Your task to perform on an android device: What's the news in Malaysia? Image 0: 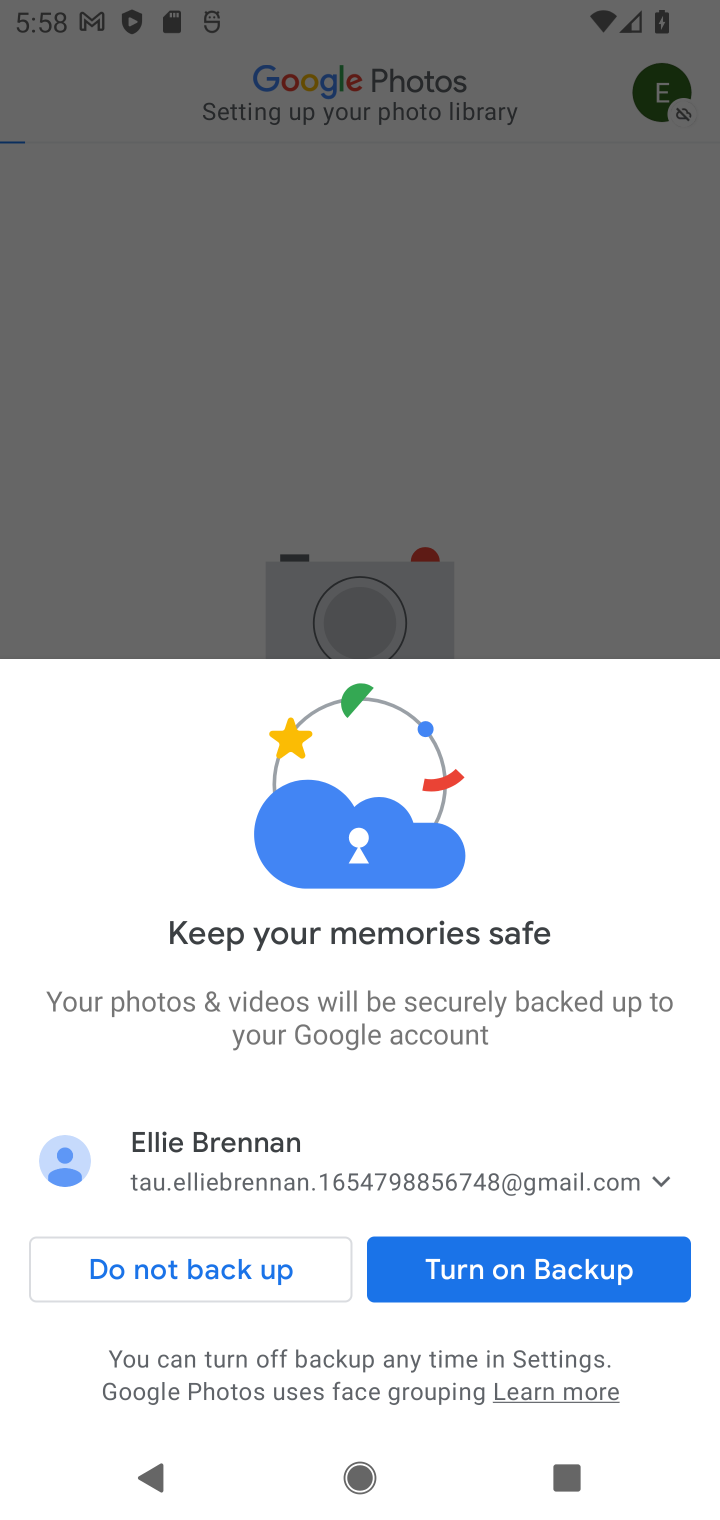
Step 0: press home button
Your task to perform on an android device: What's the news in Malaysia? Image 1: 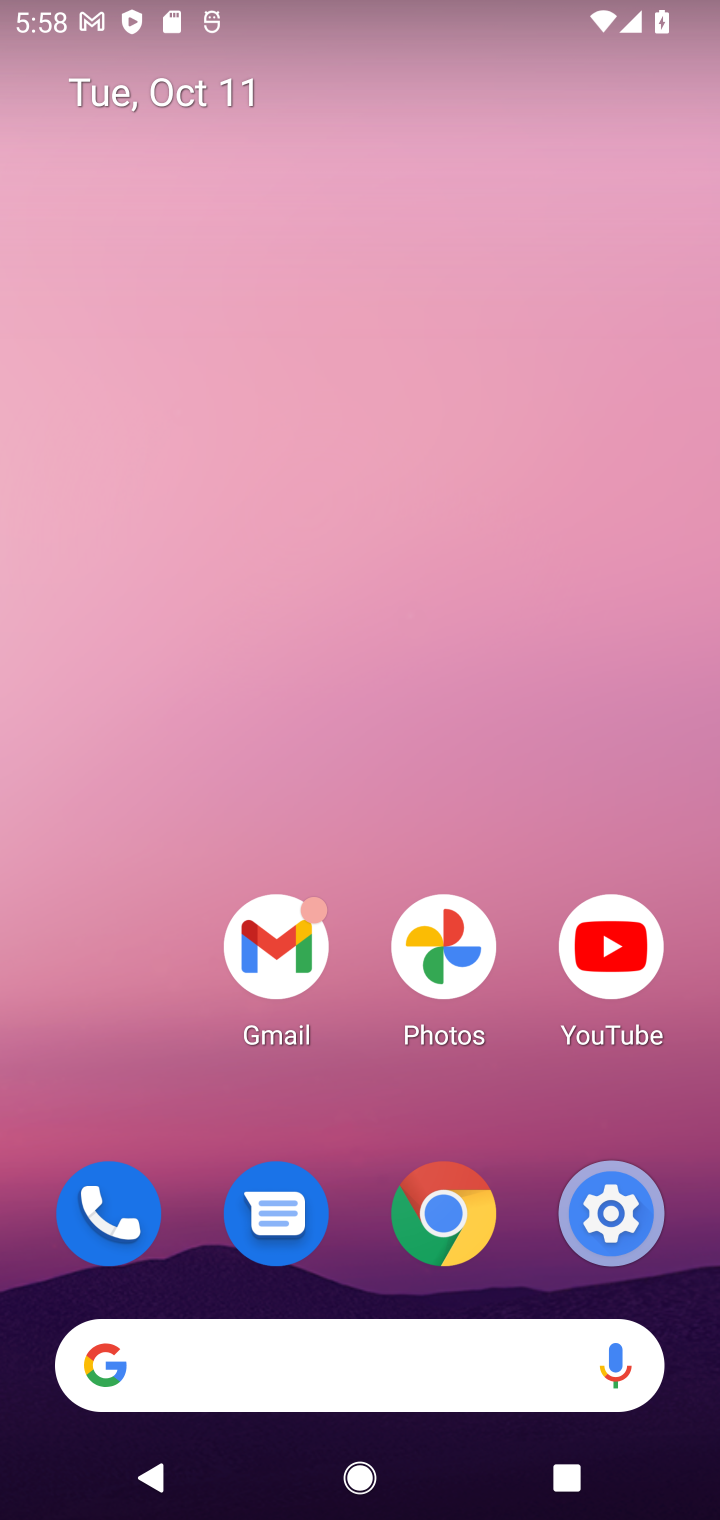
Step 1: drag from (375, 1297) to (375, 15)
Your task to perform on an android device: What's the news in Malaysia? Image 2: 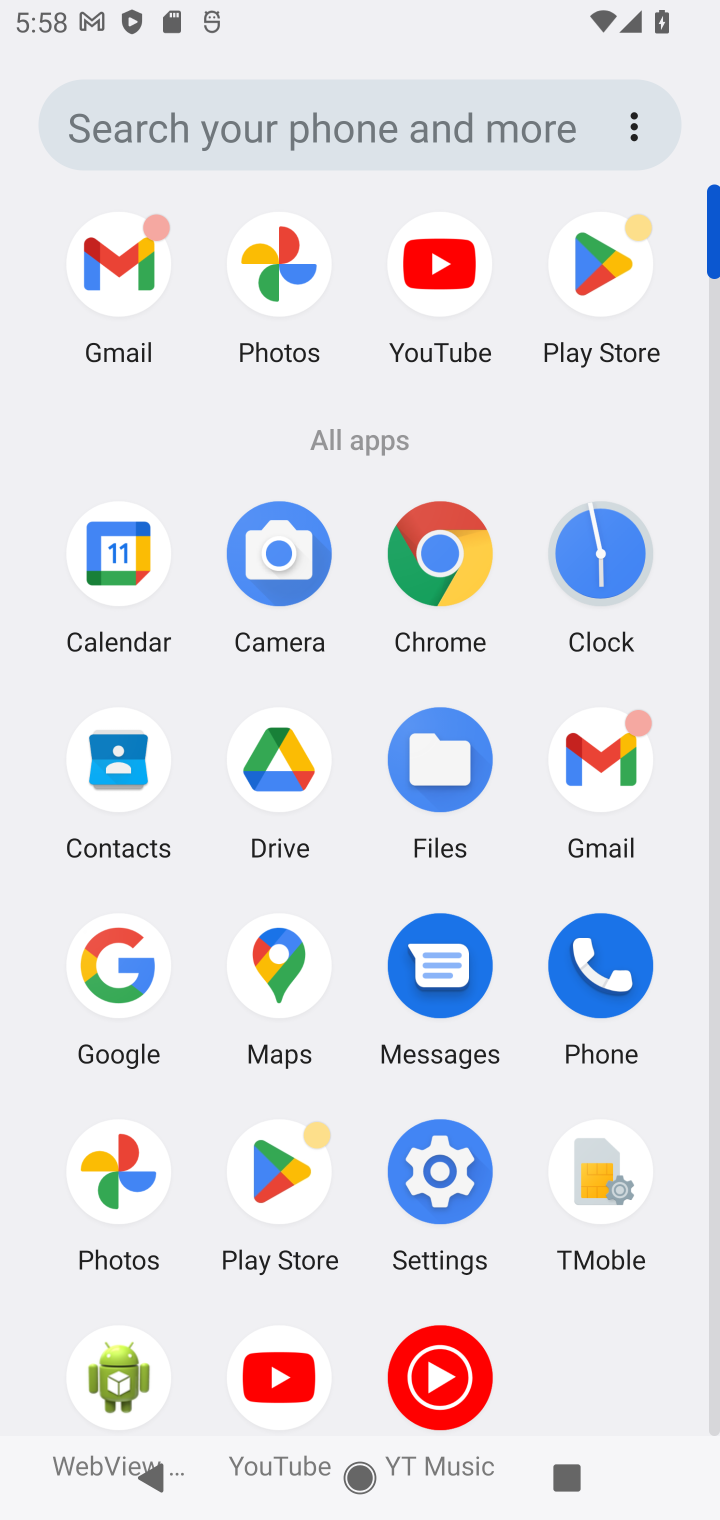
Step 2: click (447, 575)
Your task to perform on an android device: What's the news in Malaysia? Image 3: 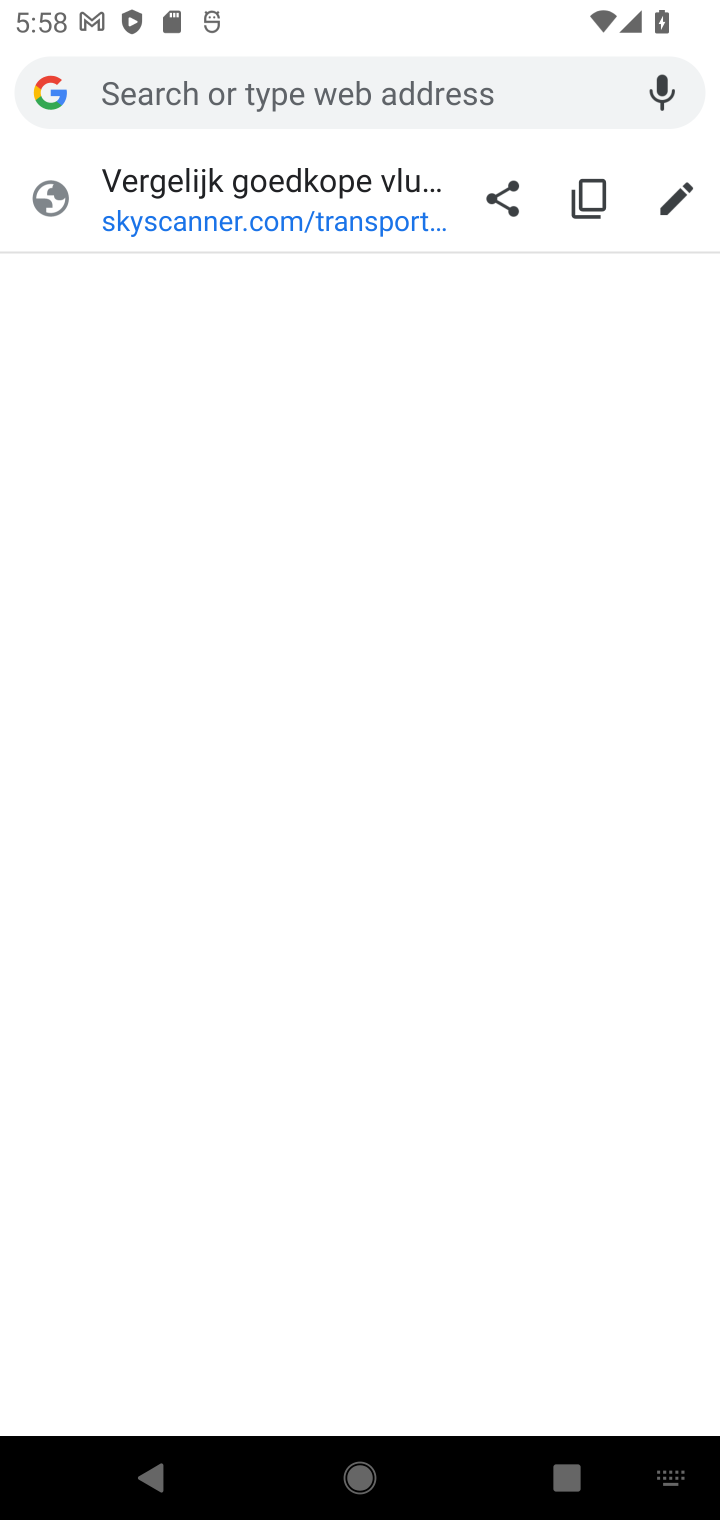
Step 3: click (388, 101)
Your task to perform on an android device: What's the news in Malaysia? Image 4: 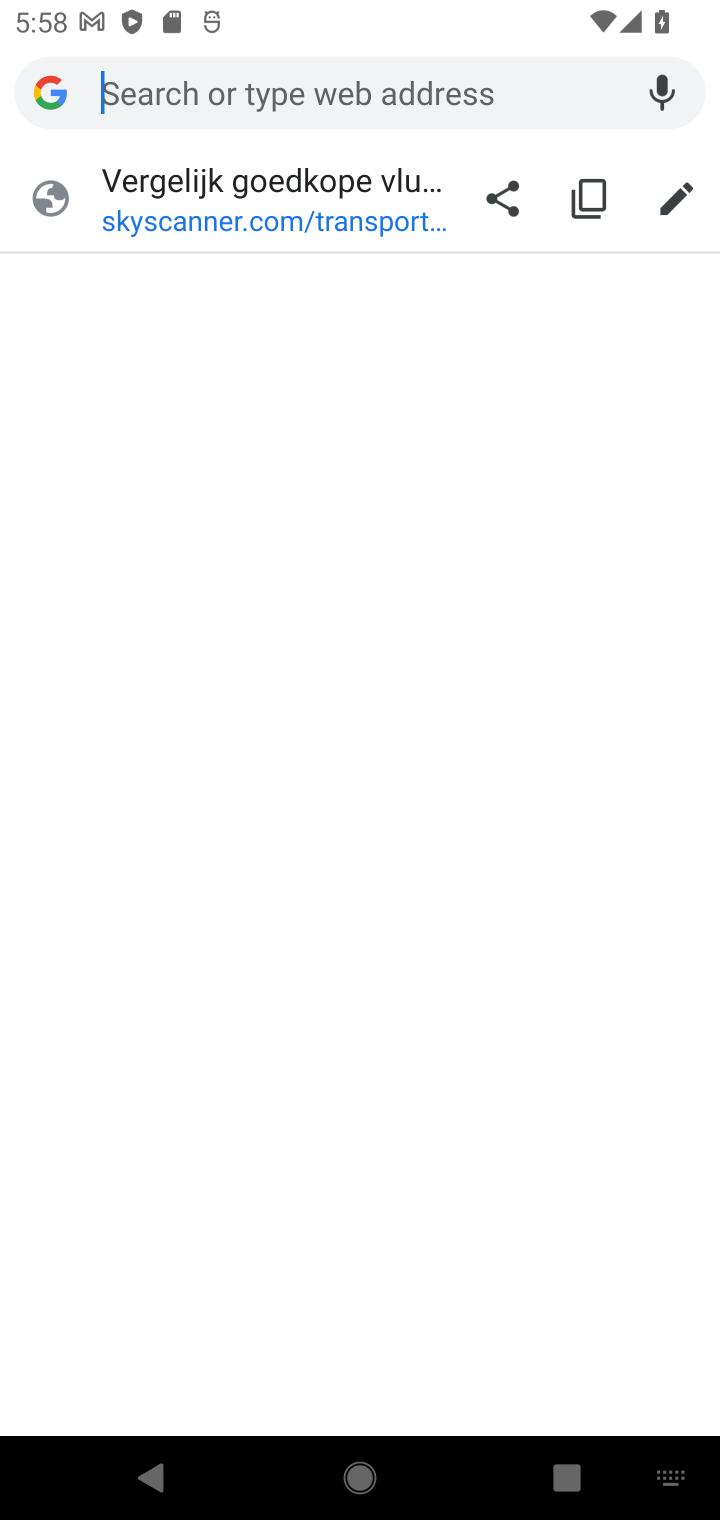
Step 4: type "What's the news in Malaysia?"
Your task to perform on an android device: What's the news in Malaysia? Image 5: 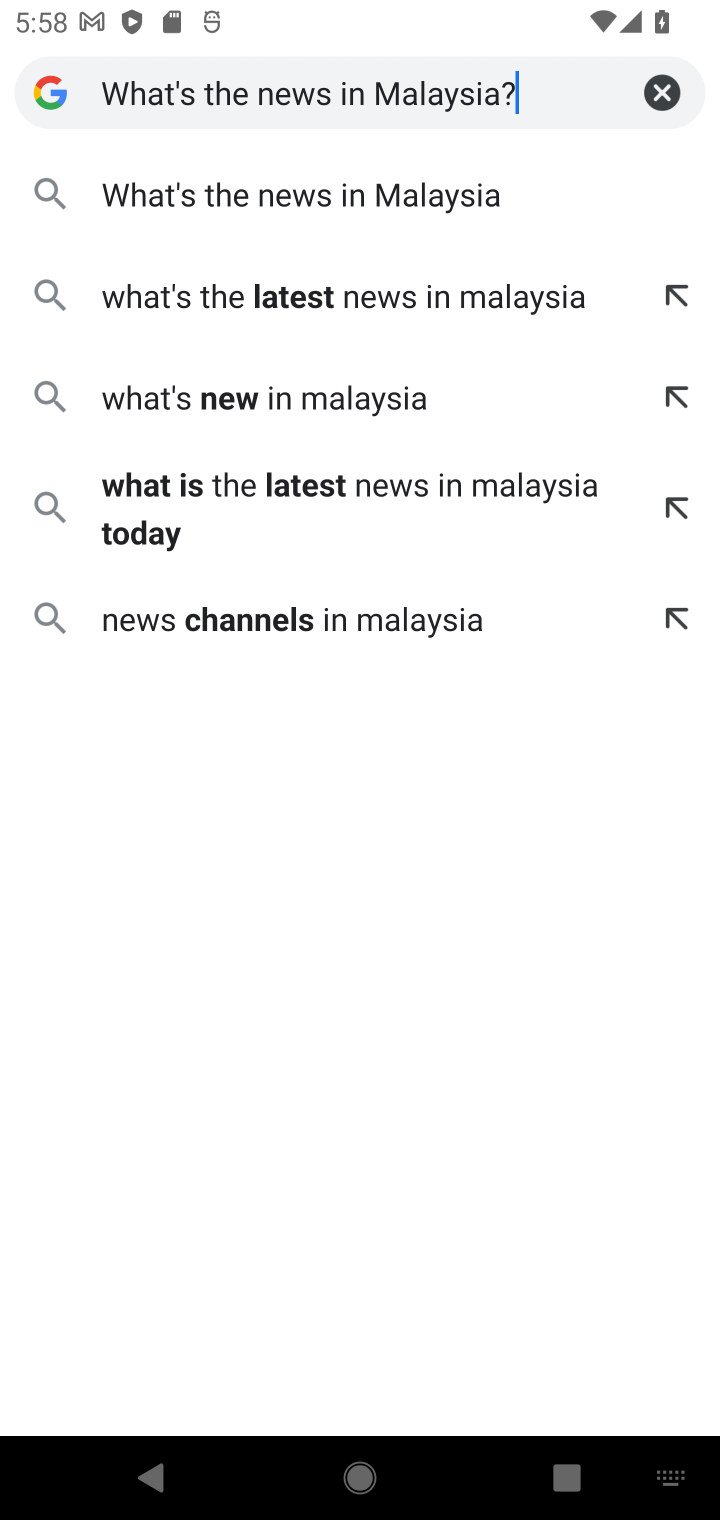
Step 5: type ""
Your task to perform on an android device: What's the news in Malaysia? Image 6: 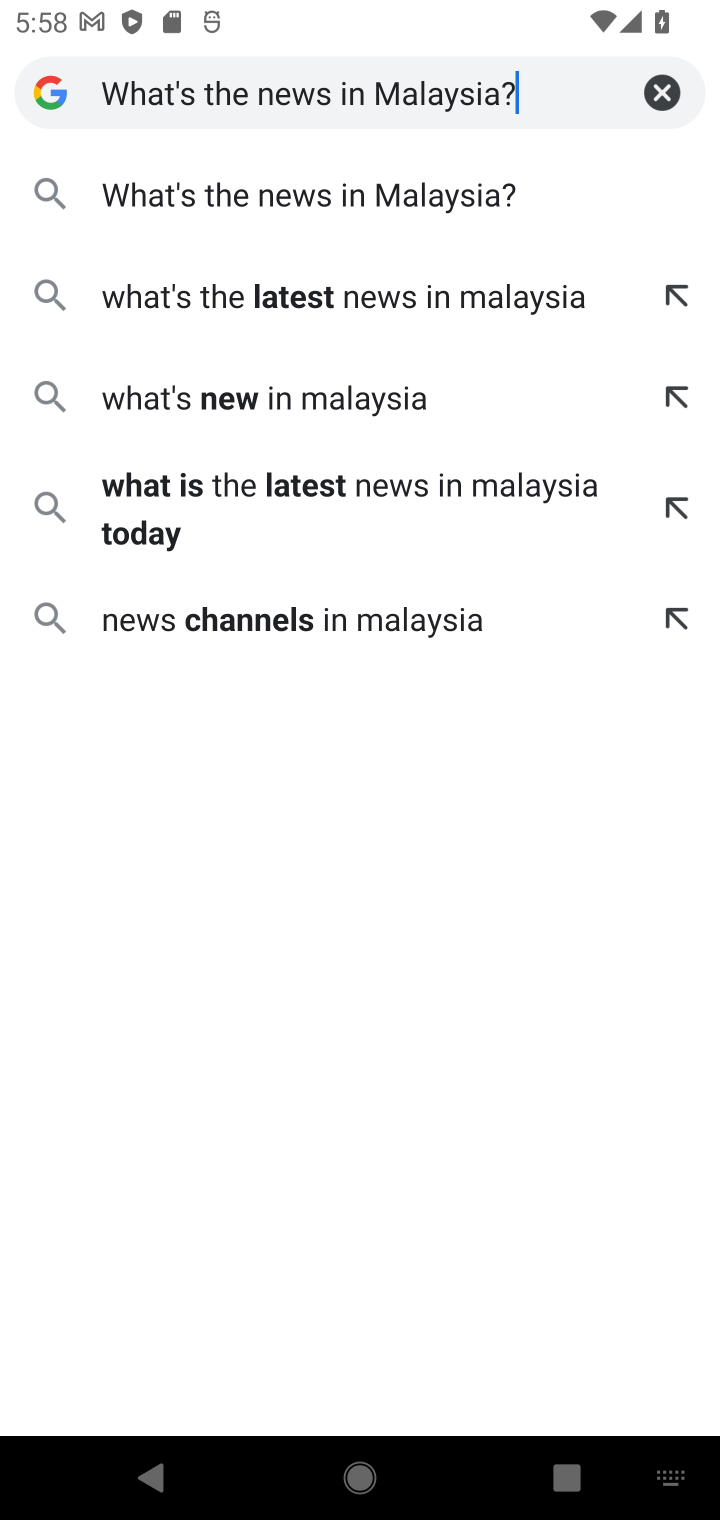
Step 6: press enter
Your task to perform on an android device: What's the news in Malaysia? Image 7: 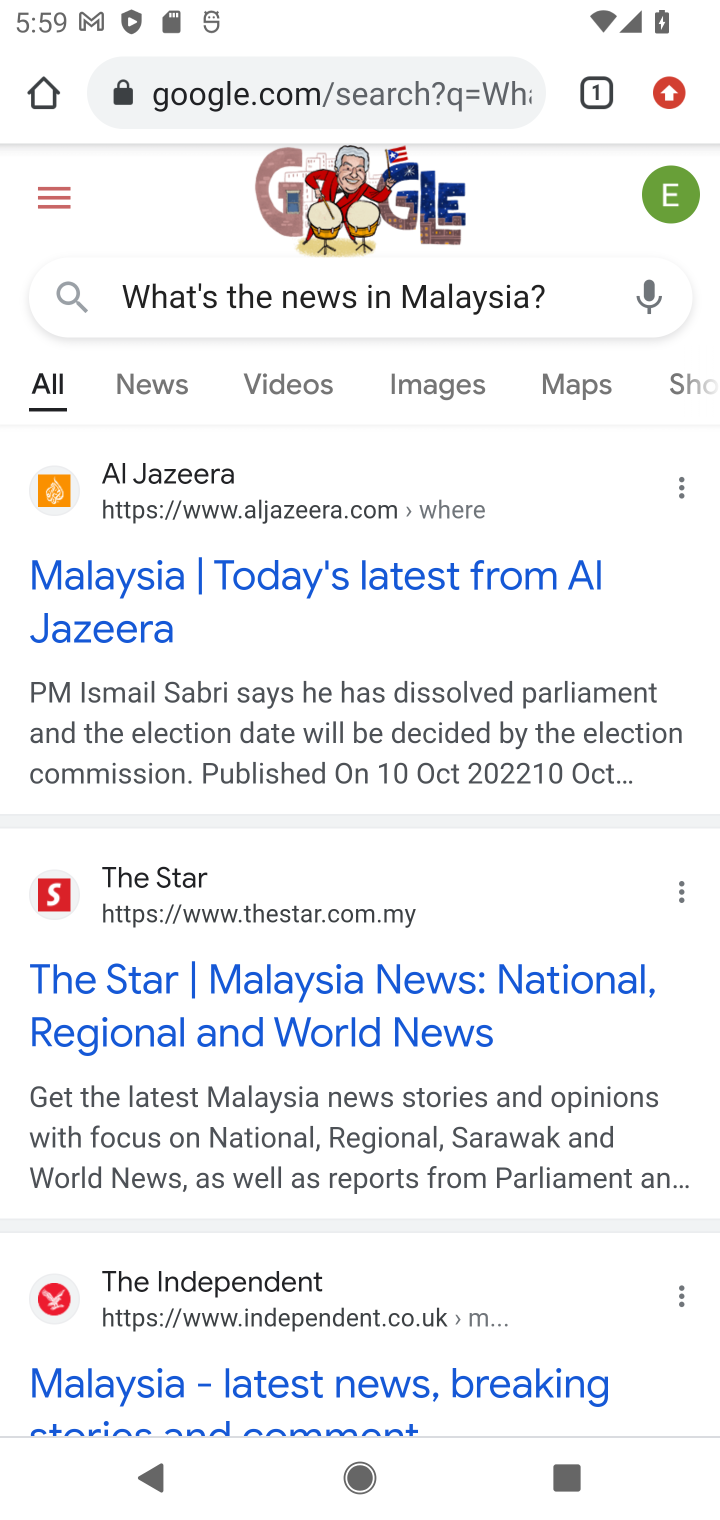
Step 7: click (271, 966)
Your task to perform on an android device: What's the news in Malaysia? Image 8: 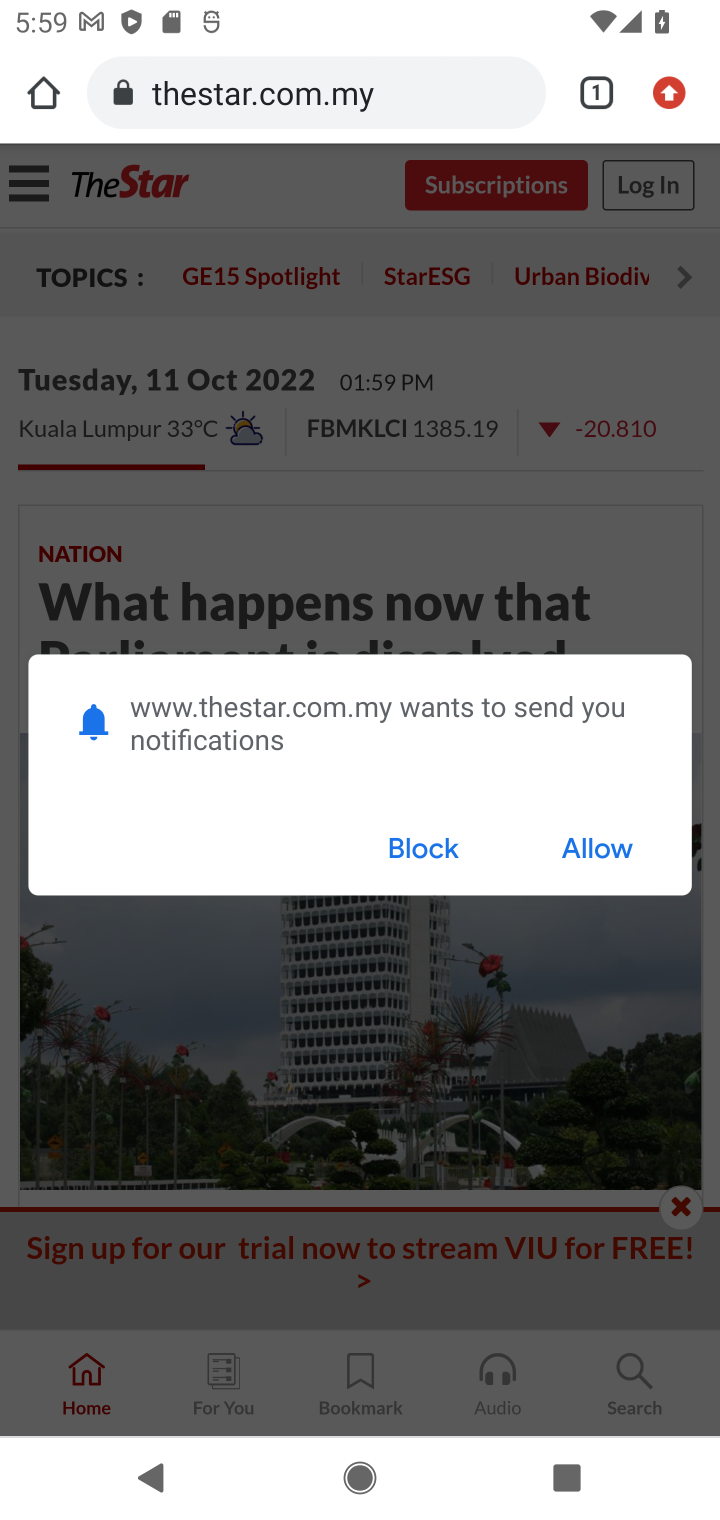
Step 8: click (404, 857)
Your task to perform on an android device: What's the news in Malaysia? Image 9: 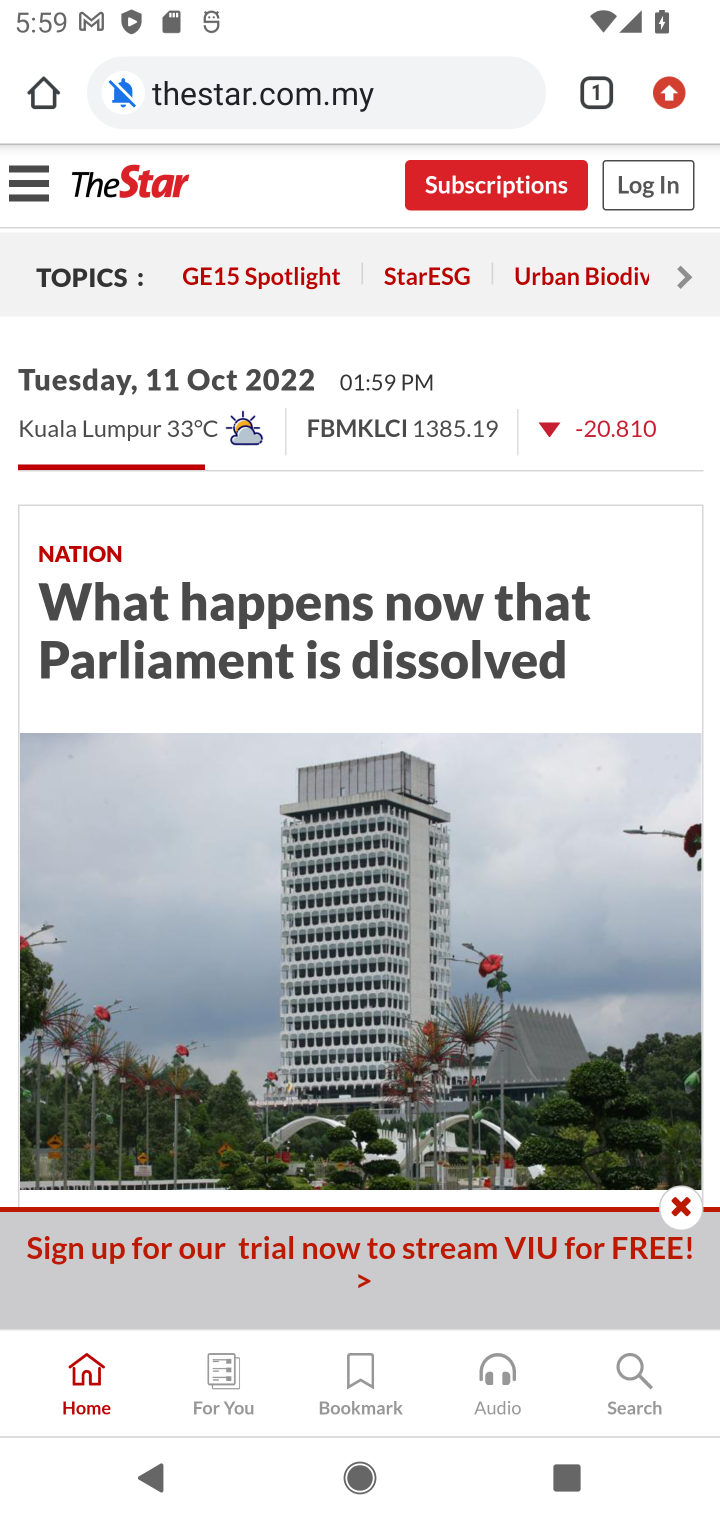
Step 9: drag from (404, 1086) to (340, 415)
Your task to perform on an android device: What's the news in Malaysia? Image 10: 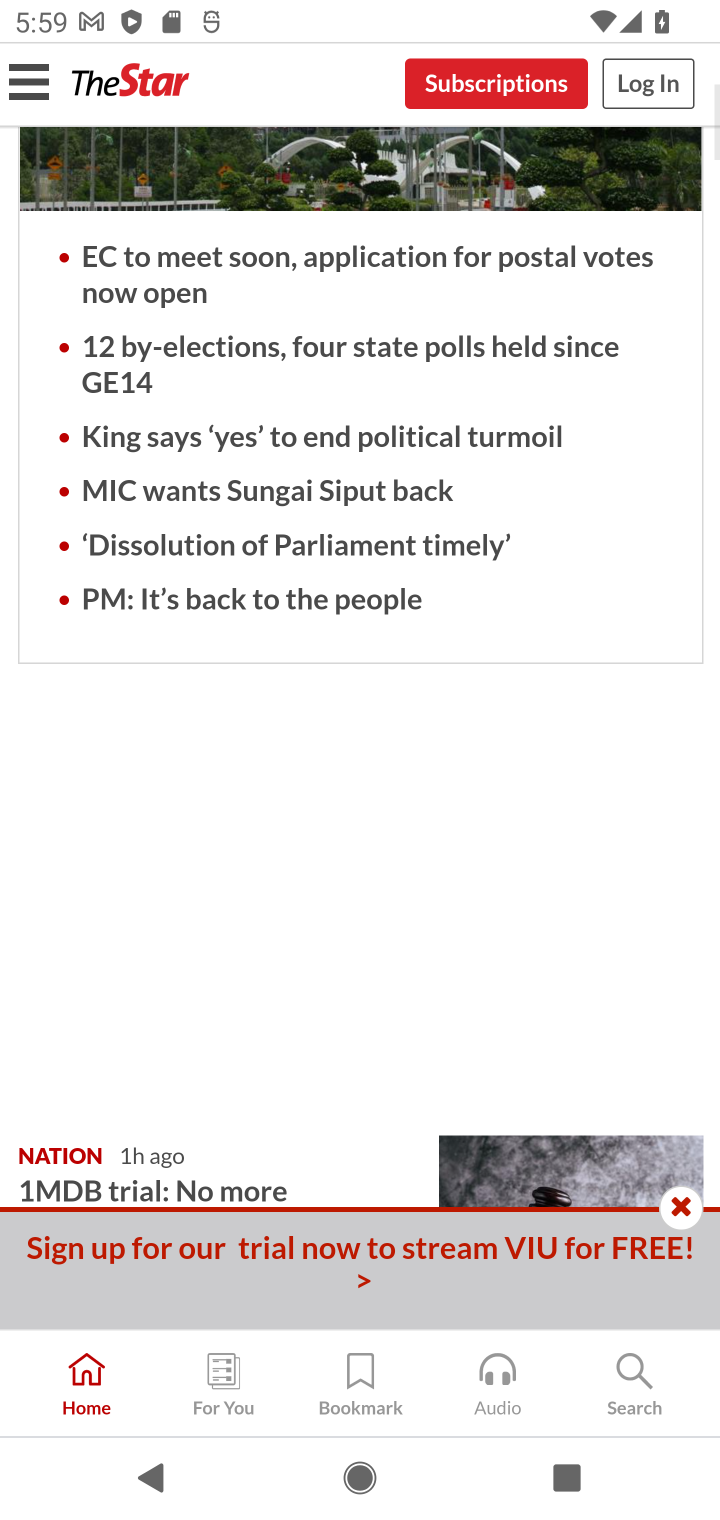
Step 10: drag from (242, 840) to (368, 458)
Your task to perform on an android device: What's the news in Malaysia? Image 11: 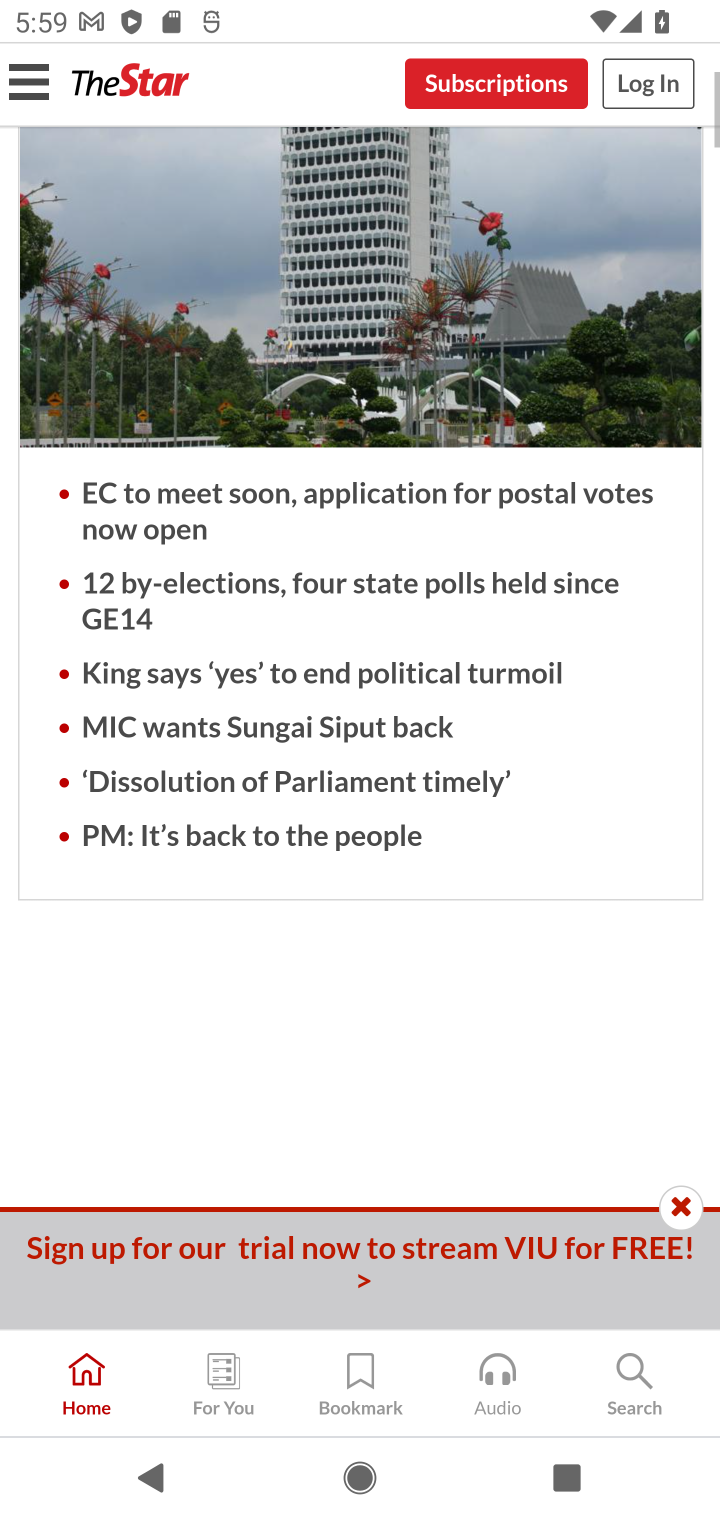
Step 11: drag from (326, 912) to (323, 494)
Your task to perform on an android device: What's the news in Malaysia? Image 12: 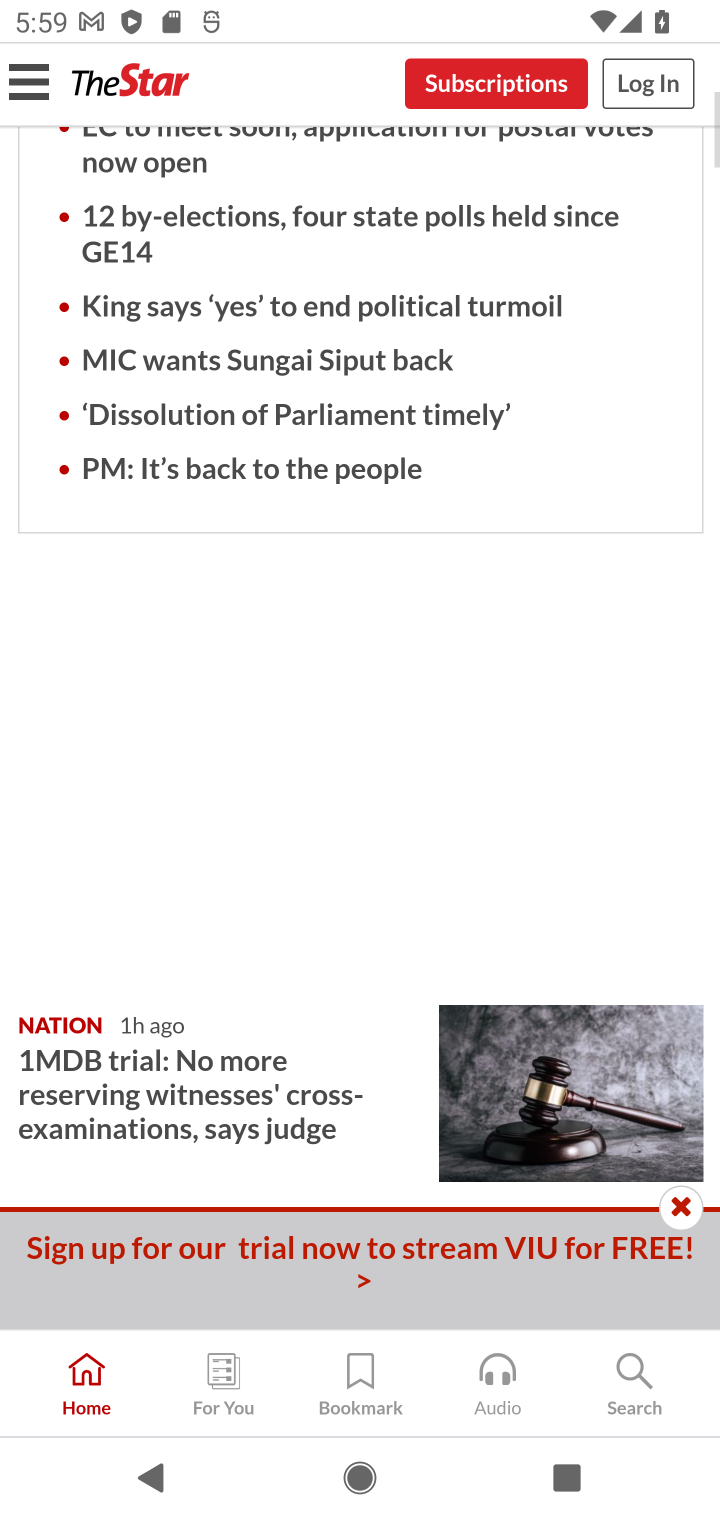
Step 12: drag from (256, 656) to (263, 494)
Your task to perform on an android device: What's the news in Malaysia? Image 13: 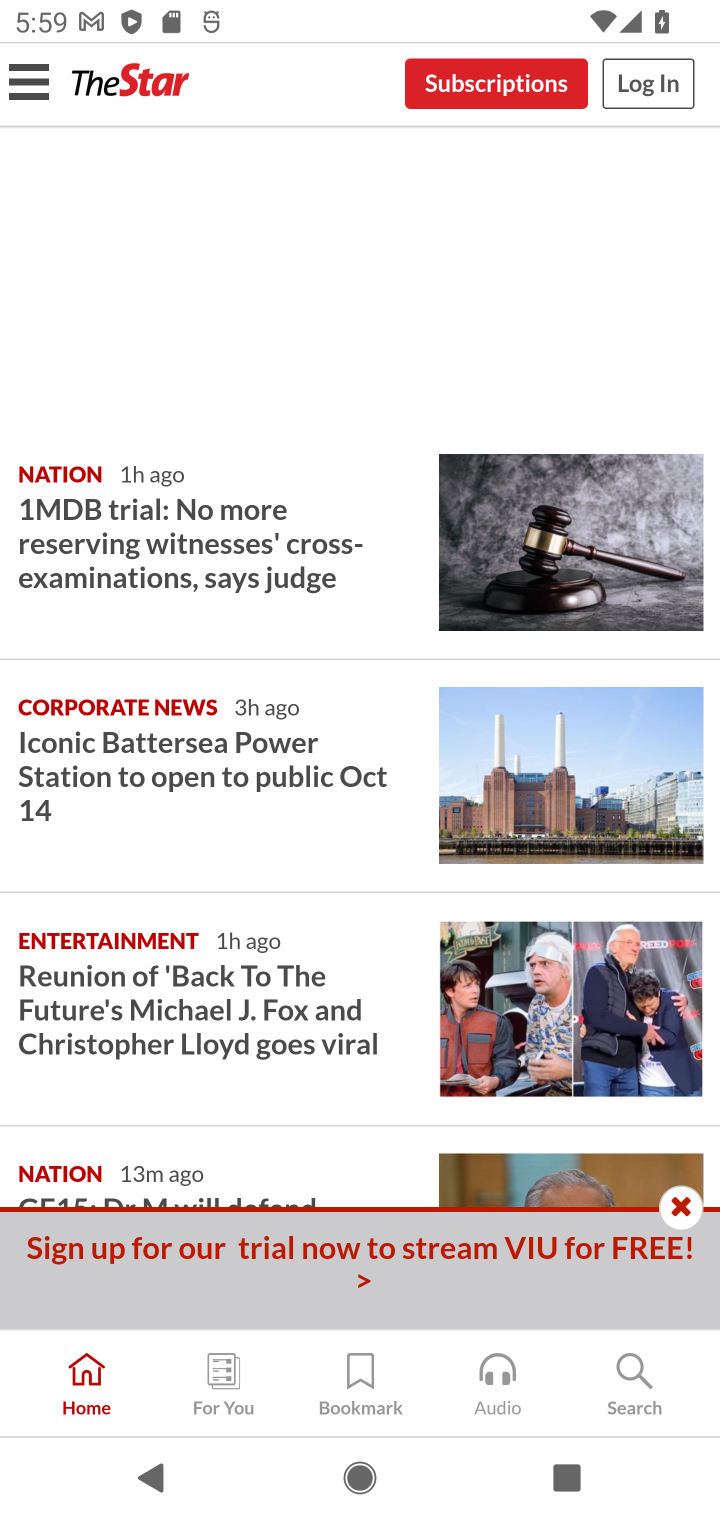
Step 13: drag from (275, 740) to (370, 472)
Your task to perform on an android device: What's the news in Malaysia? Image 14: 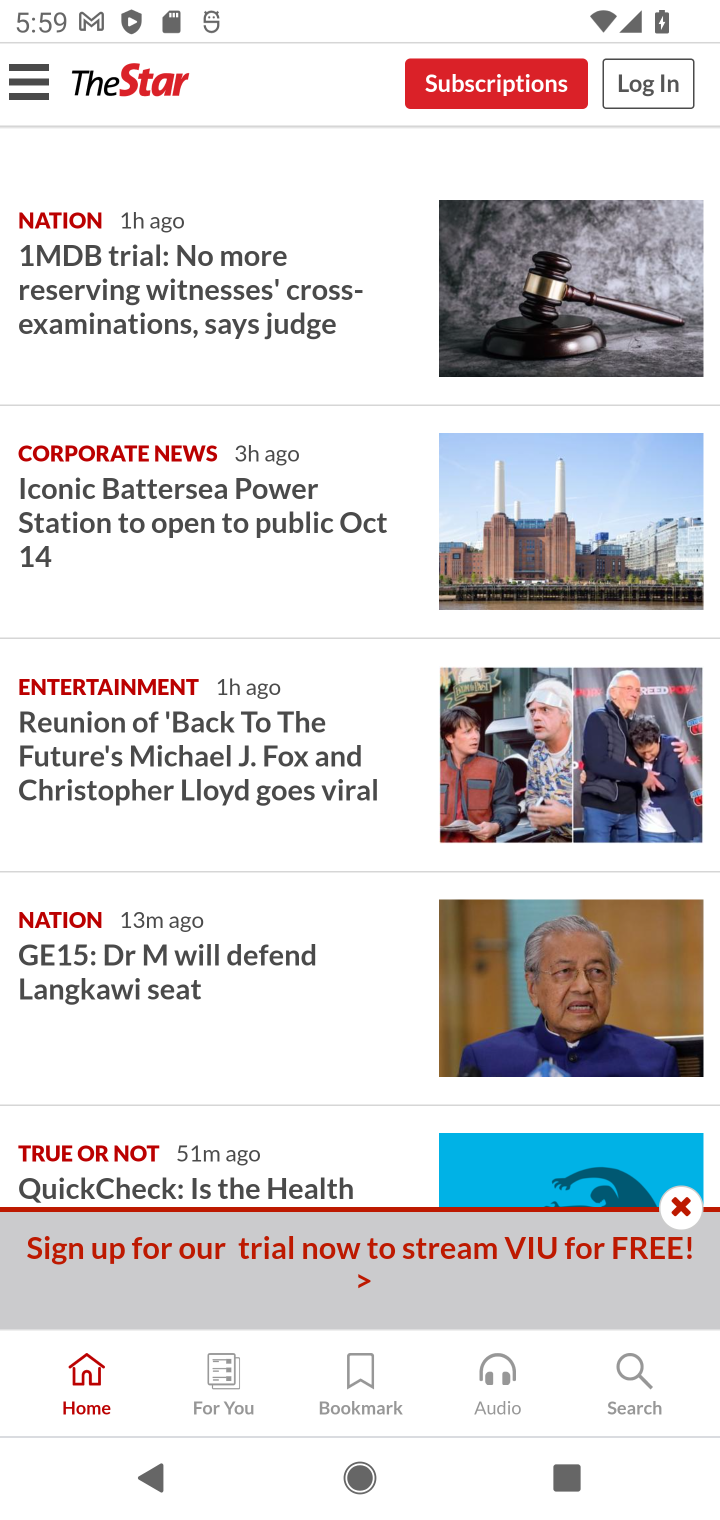
Step 14: drag from (346, 397) to (305, 208)
Your task to perform on an android device: What's the news in Malaysia? Image 15: 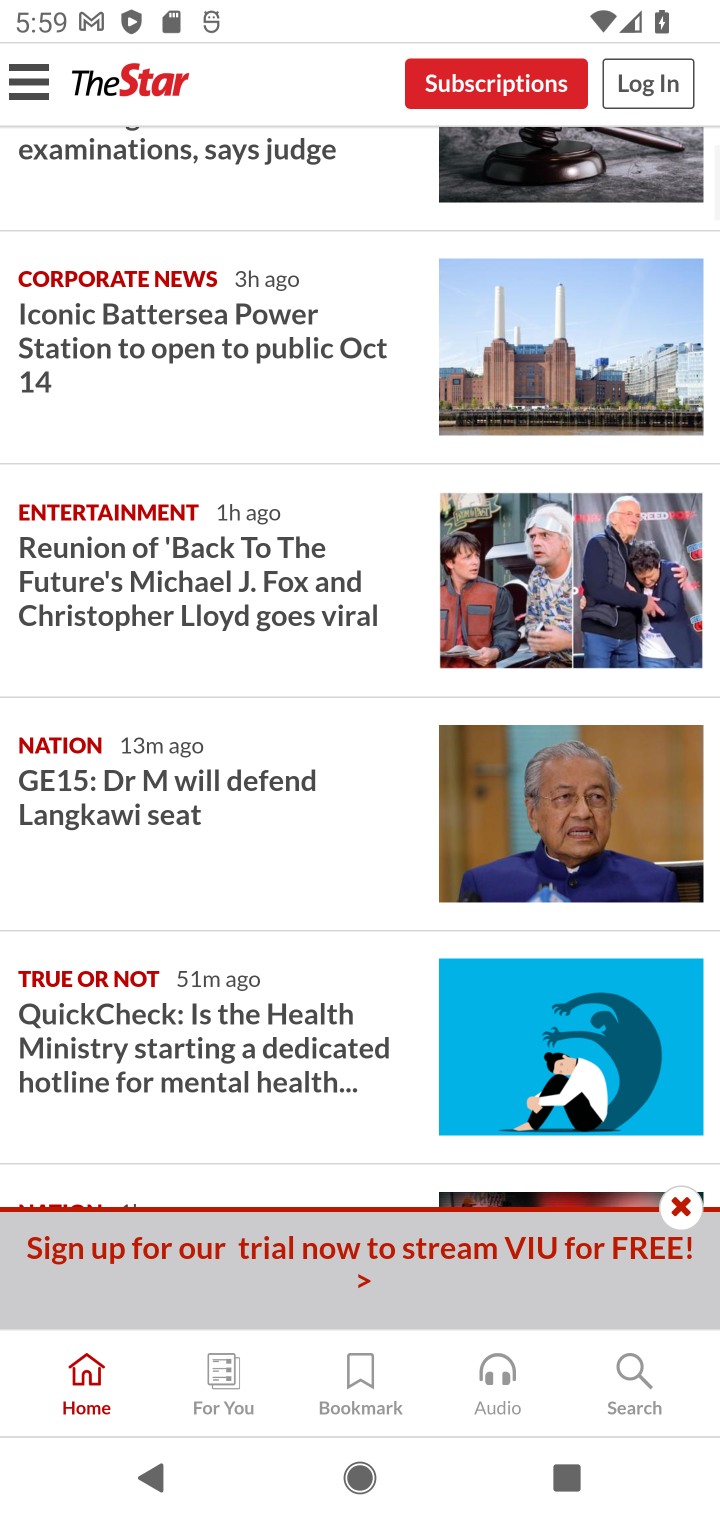
Step 15: press back button
Your task to perform on an android device: What's the news in Malaysia? Image 16: 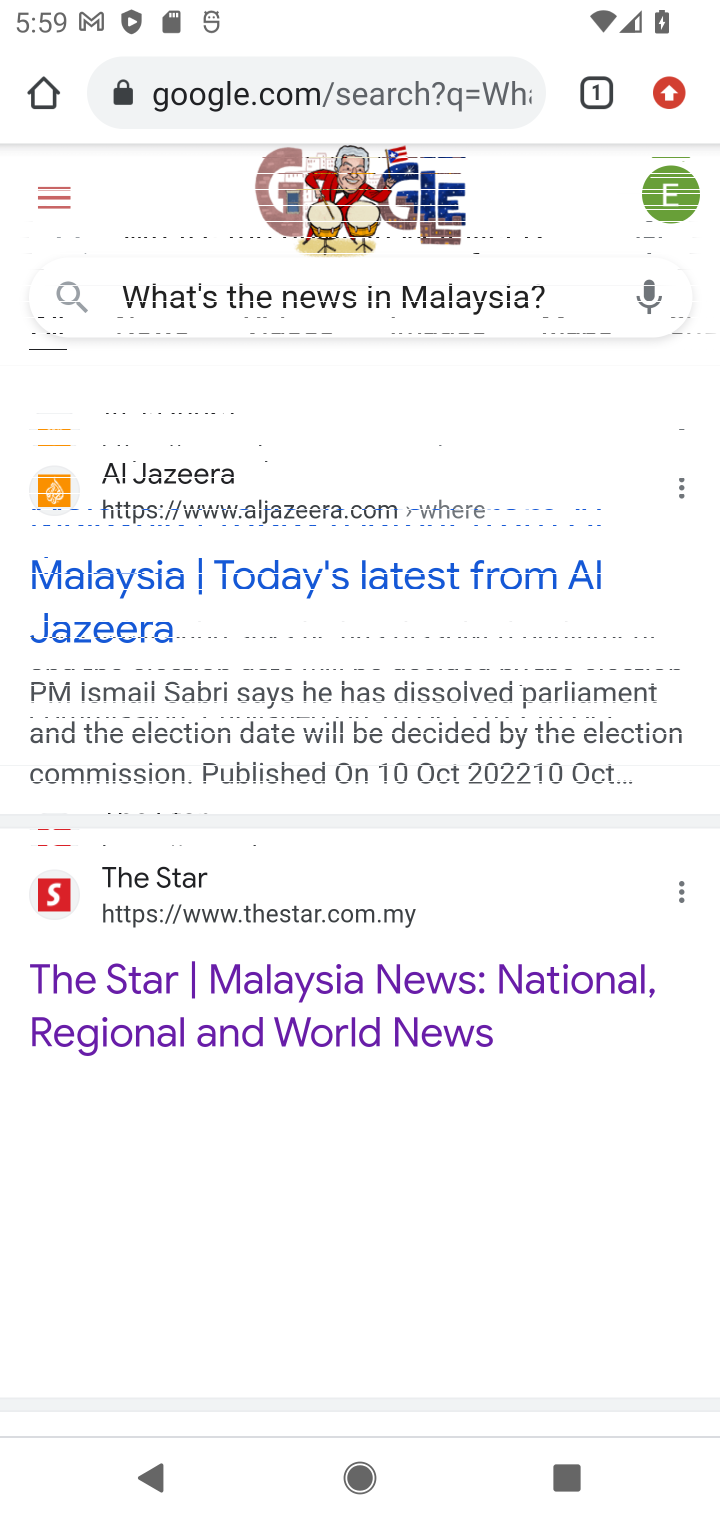
Step 16: click (297, 565)
Your task to perform on an android device: What's the news in Malaysia? Image 17: 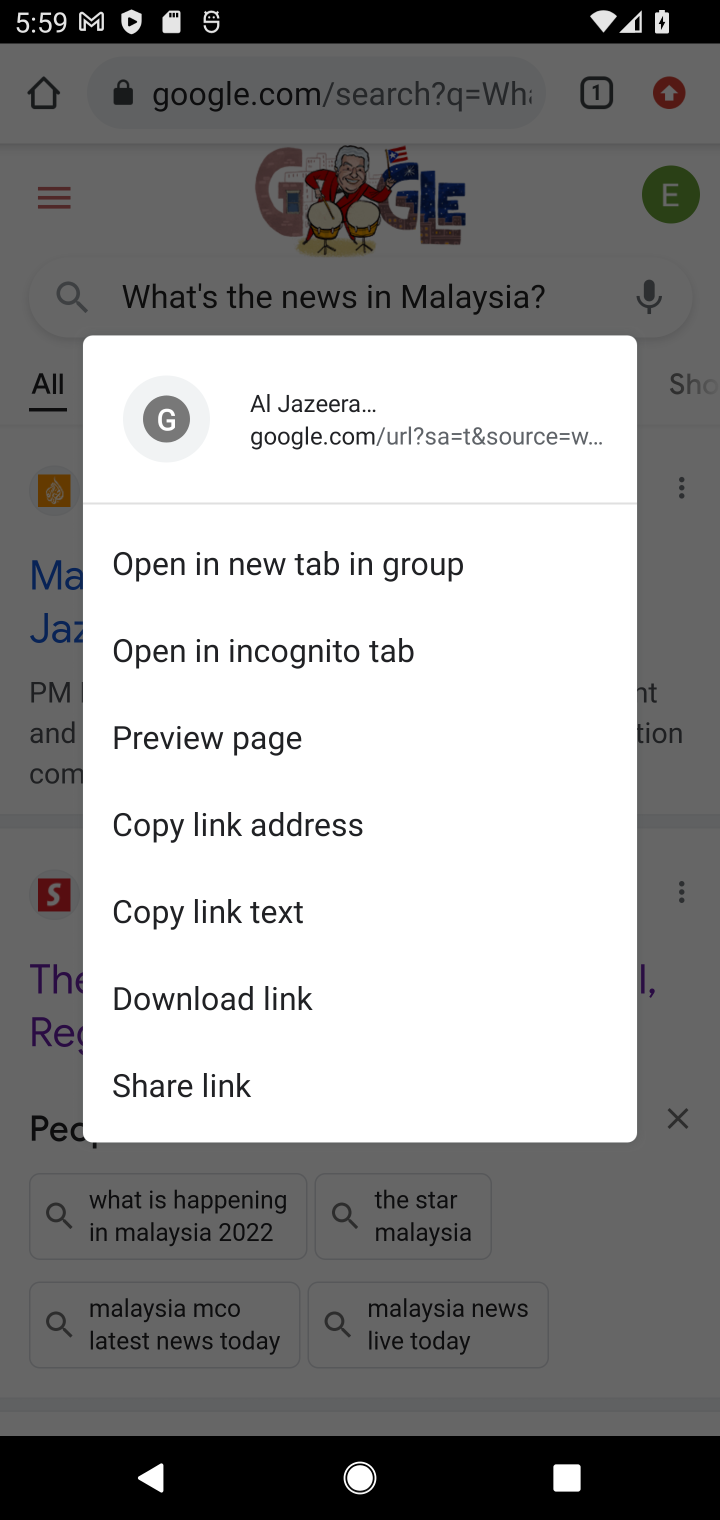
Step 17: drag from (282, 533) to (405, 110)
Your task to perform on an android device: What's the news in Malaysia? Image 18: 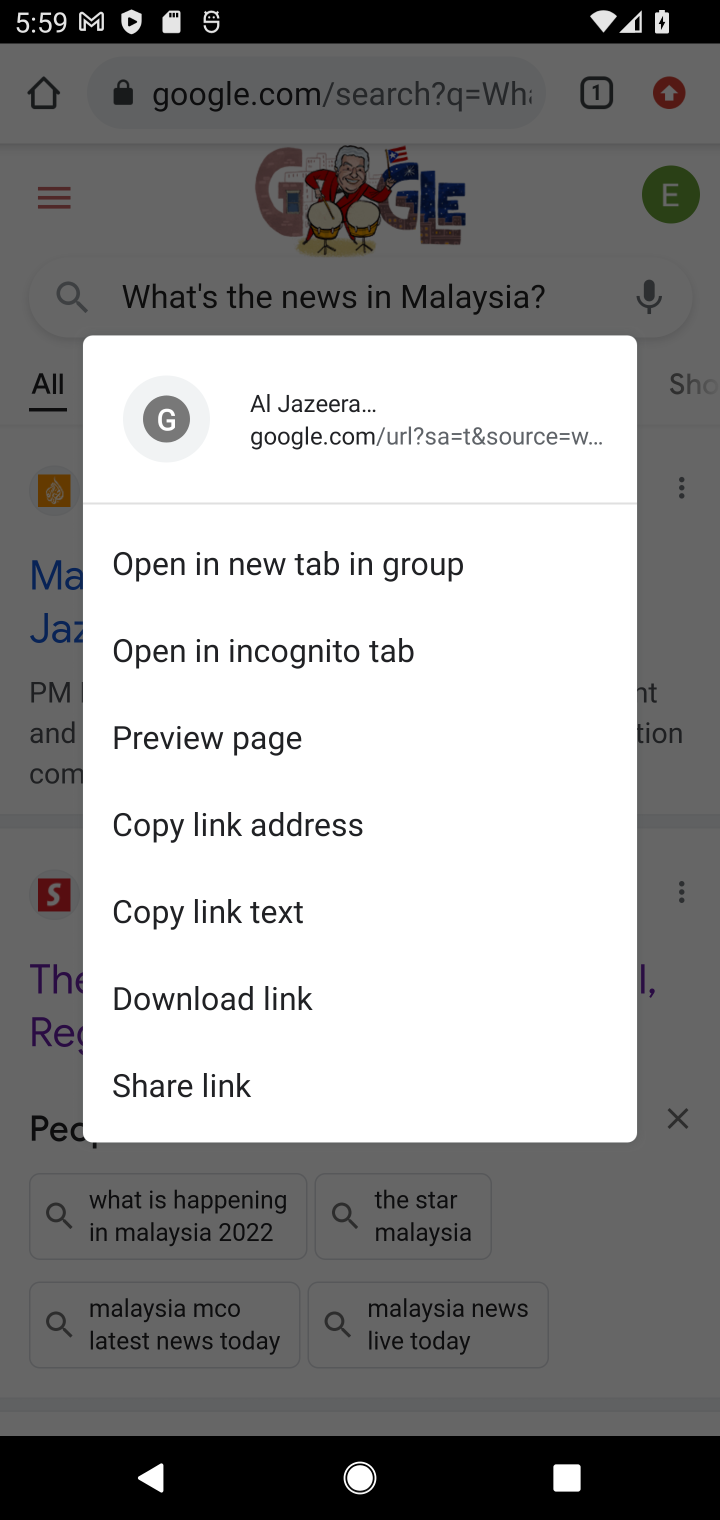
Step 18: click (350, 250)
Your task to perform on an android device: What's the news in Malaysia? Image 19: 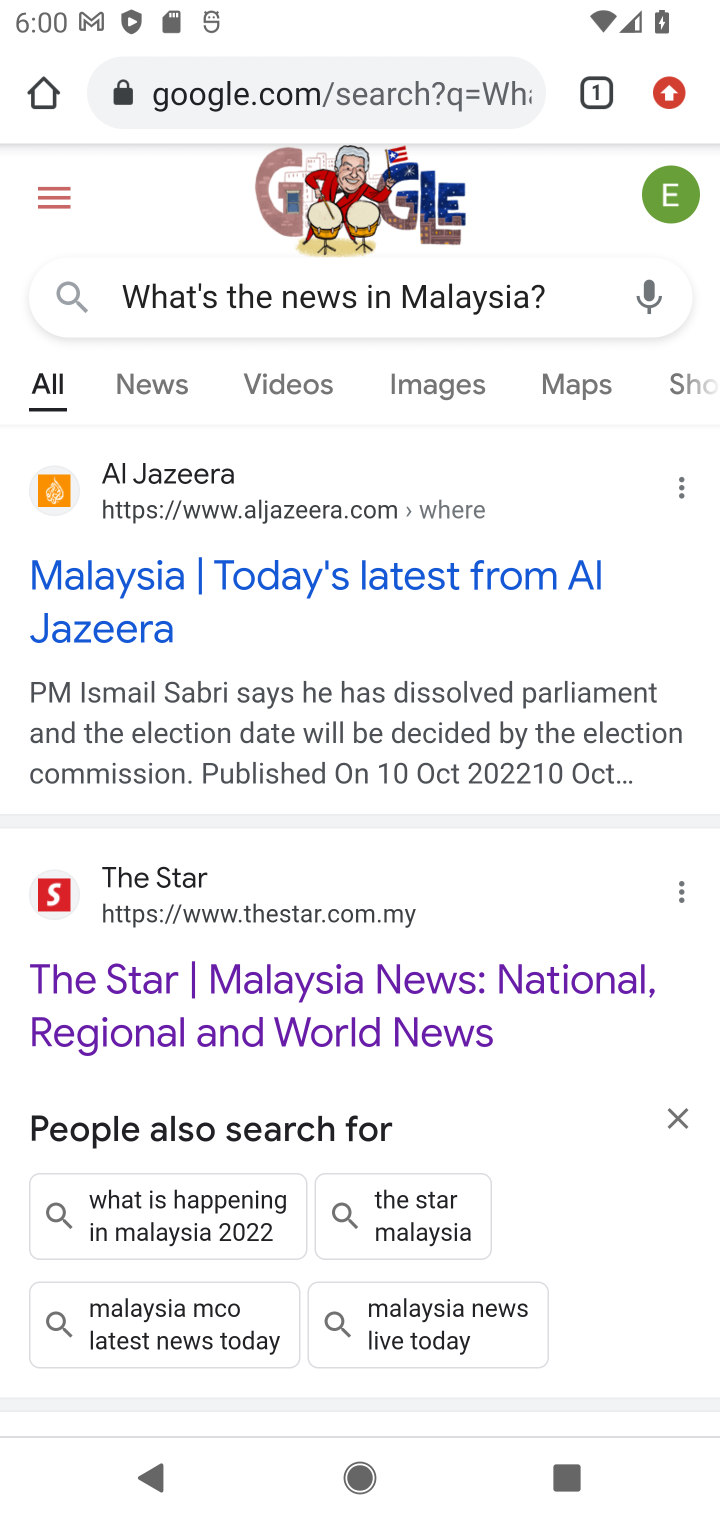
Step 19: task complete